Your task to perform on an android device: Is it going to rain this weekend? Image 0: 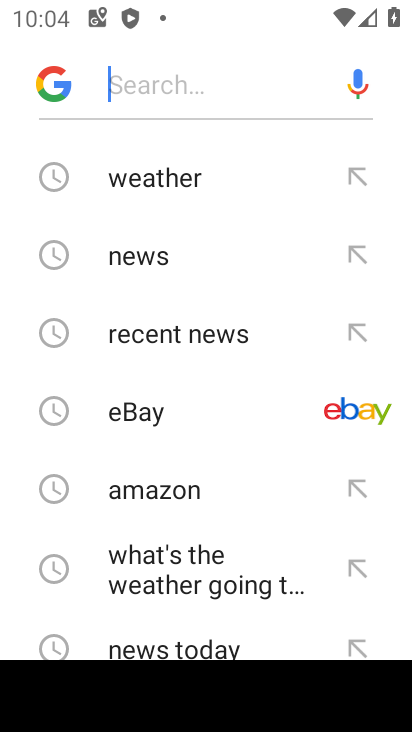
Step 0: press home button
Your task to perform on an android device: Is it going to rain this weekend? Image 1: 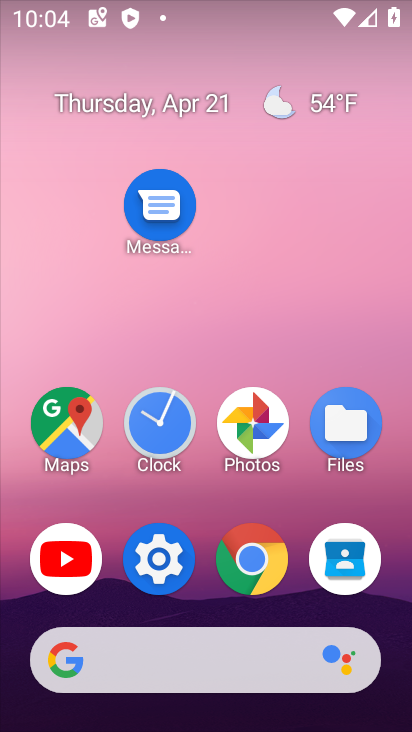
Step 1: click (275, 97)
Your task to perform on an android device: Is it going to rain this weekend? Image 2: 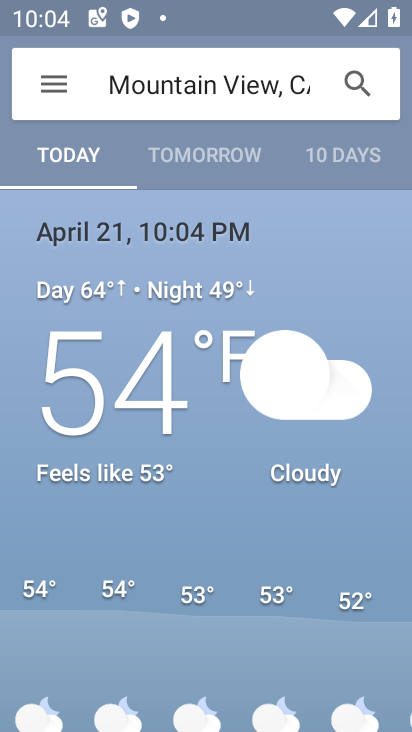
Step 2: click (356, 144)
Your task to perform on an android device: Is it going to rain this weekend? Image 3: 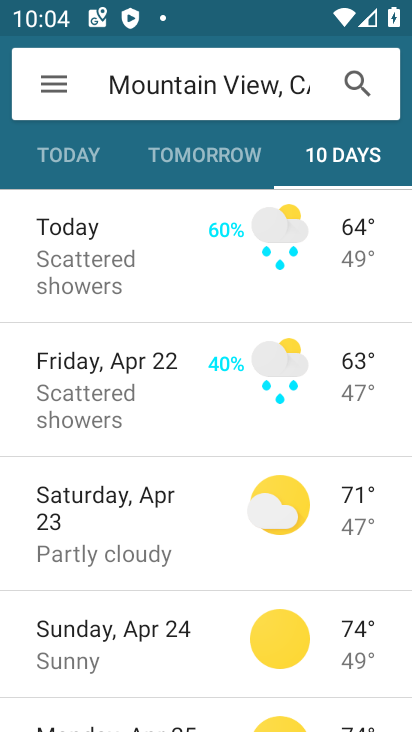
Step 3: task complete